Your task to perform on an android device: turn off airplane mode Image 0: 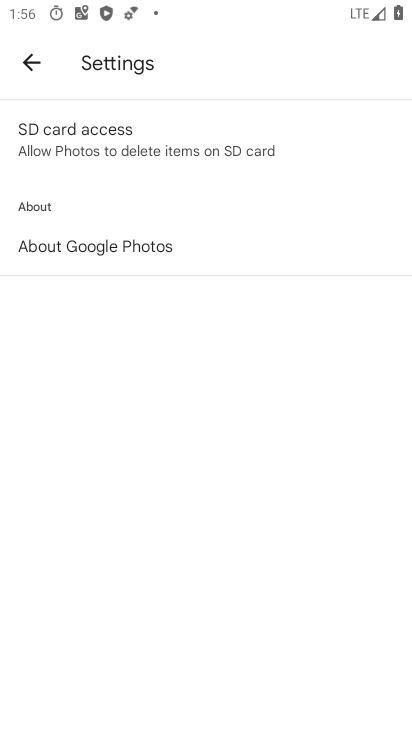
Step 0: press home button
Your task to perform on an android device: turn off airplane mode Image 1: 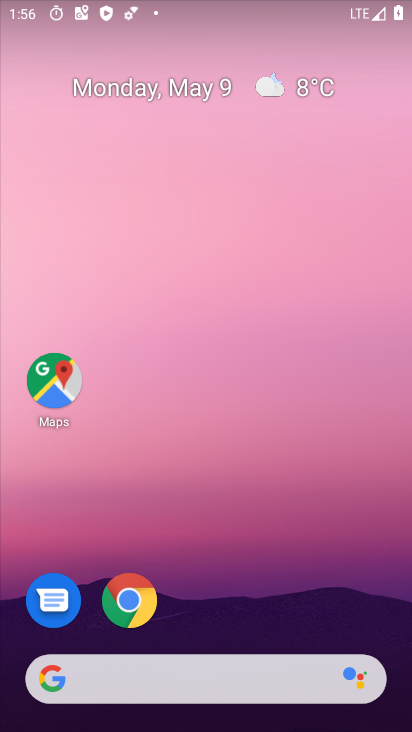
Step 1: task complete